Your task to perform on an android device: toggle location history Image 0: 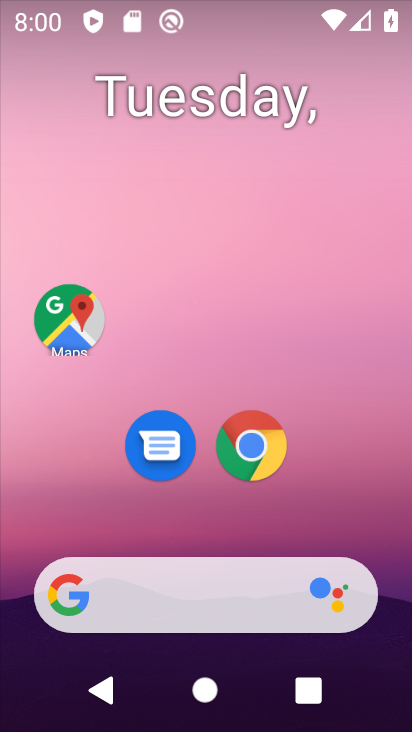
Step 0: drag from (179, 440) to (211, 259)
Your task to perform on an android device: toggle location history Image 1: 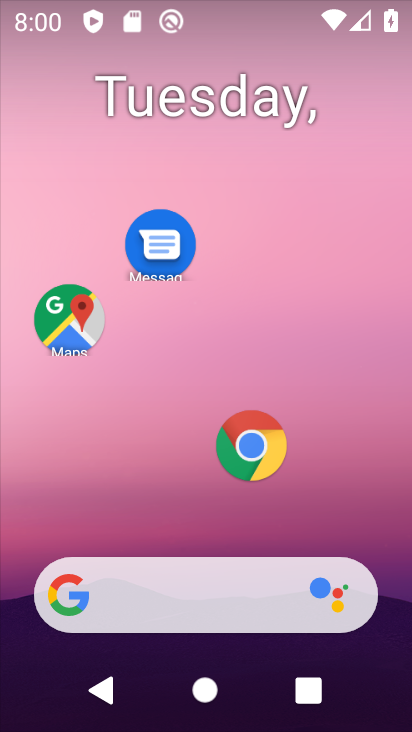
Step 1: drag from (191, 548) to (223, 149)
Your task to perform on an android device: toggle location history Image 2: 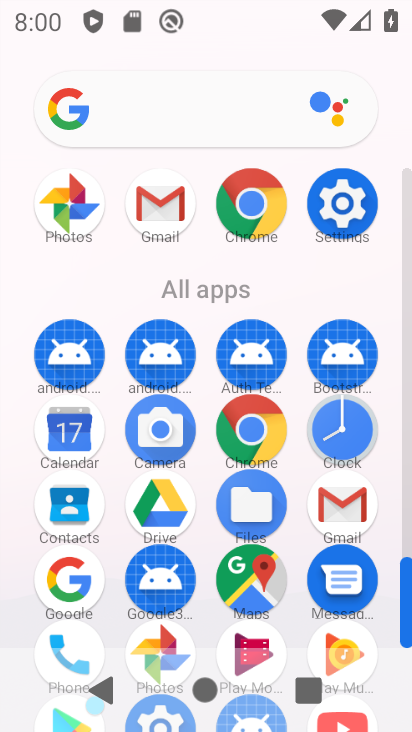
Step 2: click (343, 189)
Your task to perform on an android device: toggle location history Image 3: 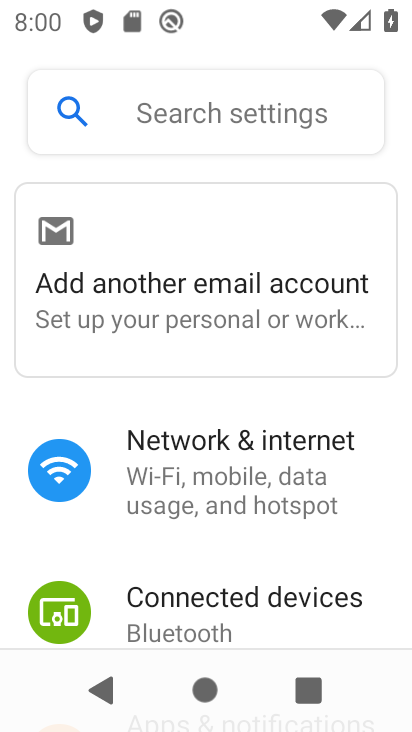
Step 3: drag from (247, 610) to (292, 338)
Your task to perform on an android device: toggle location history Image 4: 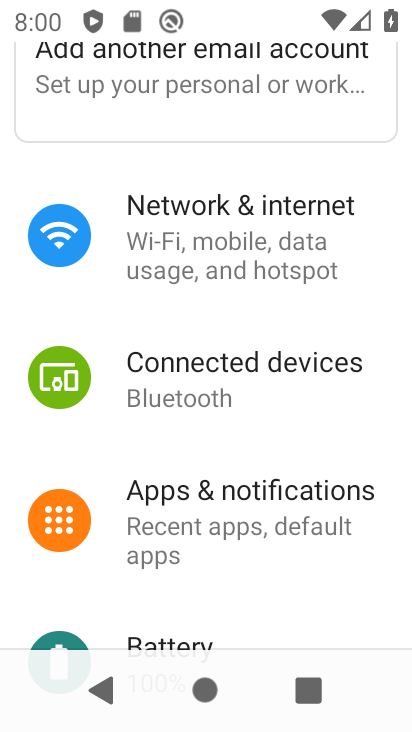
Step 4: drag from (279, 486) to (311, 341)
Your task to perform on an android device: toggle location history Image 5: 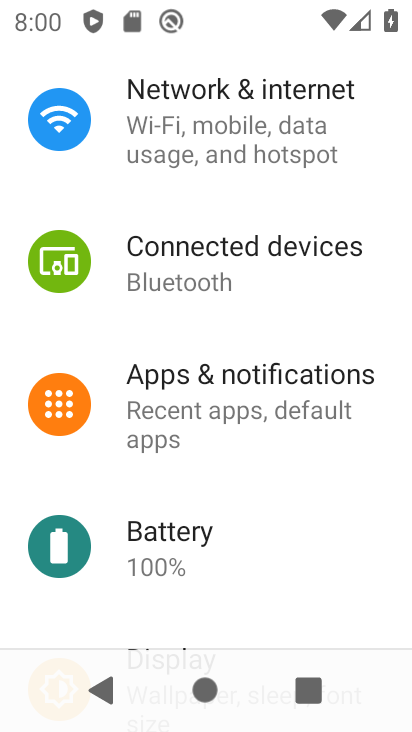
Step 5: drag from (299, 399) to (310, 309)
Your task to perform on an android device: toggle location history Image 6: 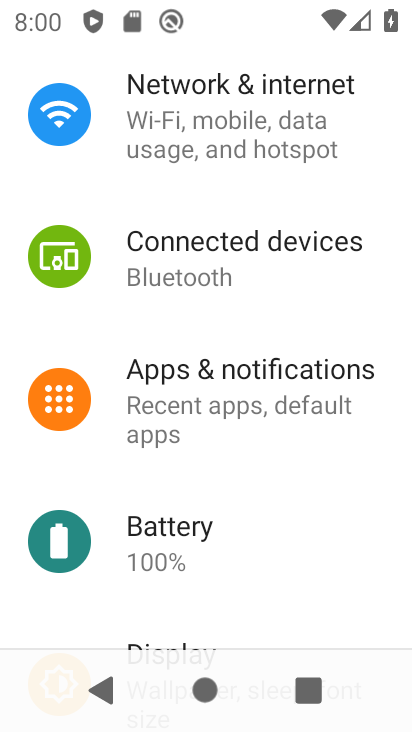
Step 6: drag from (260, 553) to (270, 324)
Your task to perform on an android device: toggle location history Image 7: 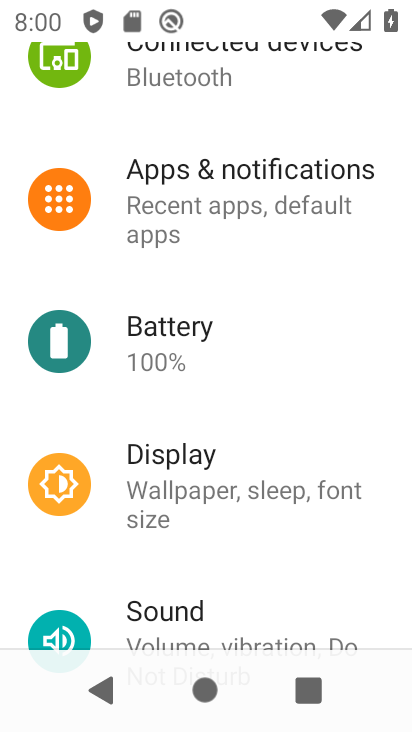
Step 7: drag from (208, 412) to (213, 278)
Your task to perform on an android device: toggle location history Image 8: 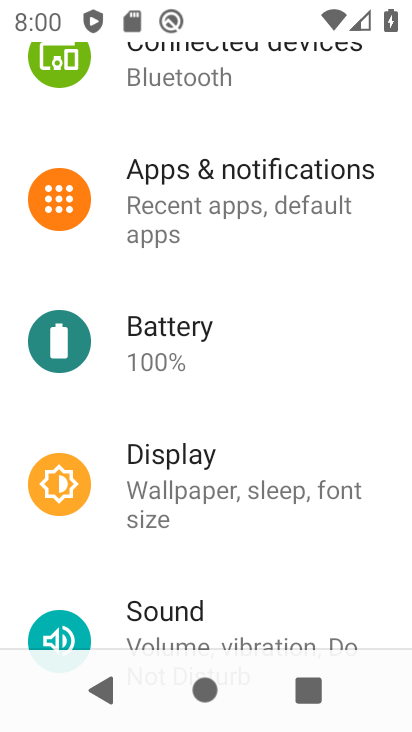
Step 8: drag from (153, 641) to (191, 335)
Your task to perform on an android device: toggle location history Image 9: 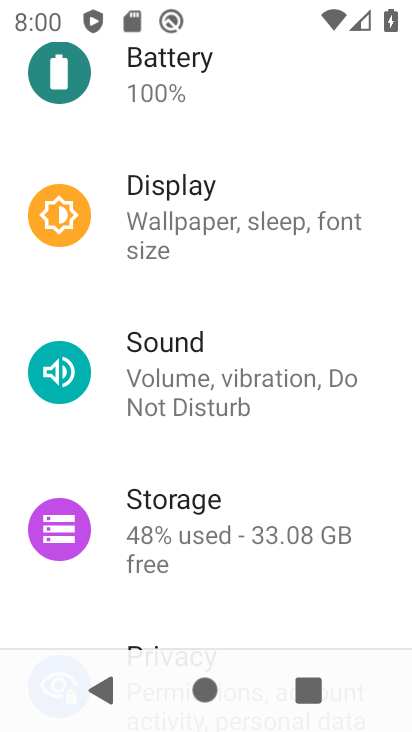
Step 9: drag from (167, 553) to (197, 283)
Your task to perform on an android device: toggle location history Image 10: 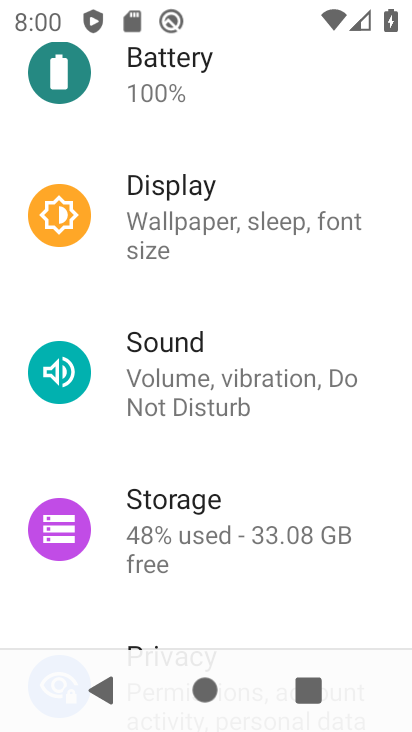
Step 10: drag from (356, 482) to (336, 217)
Your task to perform on an android device: toggle location history Image 11: 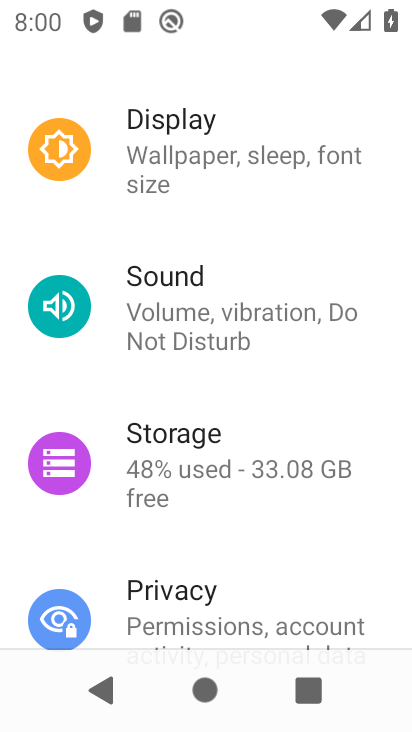
Step 11: drag from (344, 642) to (310, 228)
Your task to perform on an android device: toggle location history Image 12: 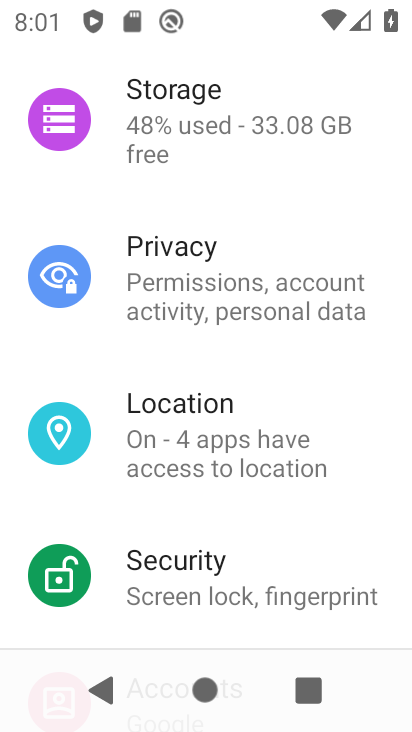
Step 12: click (197, 444)
Your task to perform on an android device: toggle location history Image 13: 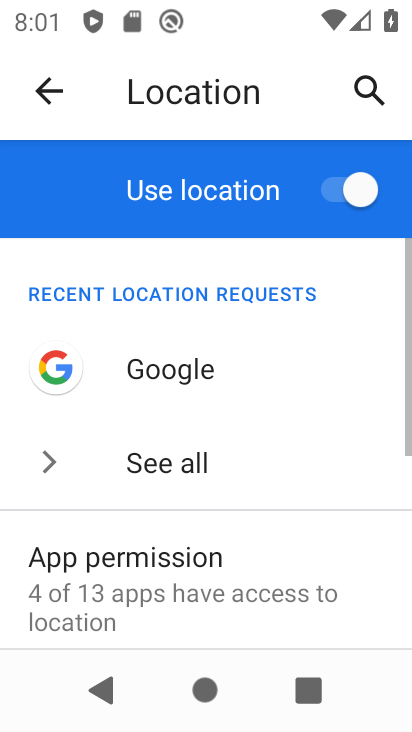
Step 13: drag from (228, 614) to (276, 298)
Your task to perform on an android device: toggle location history Image 14: 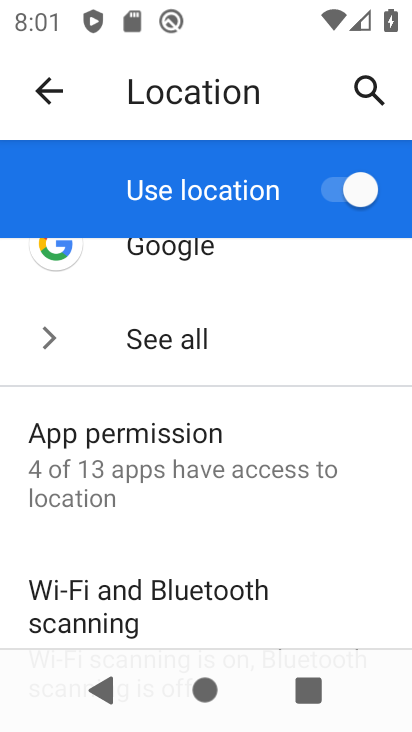
Step 14: drag from (277, 627) to (266, 369)
Your task to perform on an android device: toggle location history Image 15: 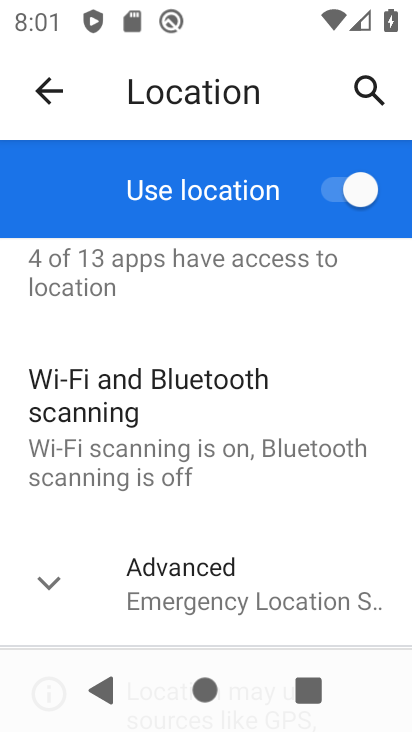
Step 15: click (179, 597)
Your task to perform on an android device: toggle location history Image 16: 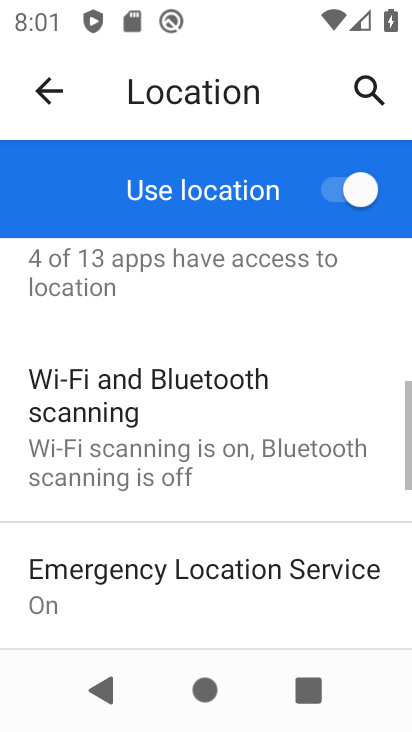
Step 16: drag from (304, 623) to (325, 314)
Your task to perform on an android device: toggle location history Image 17: 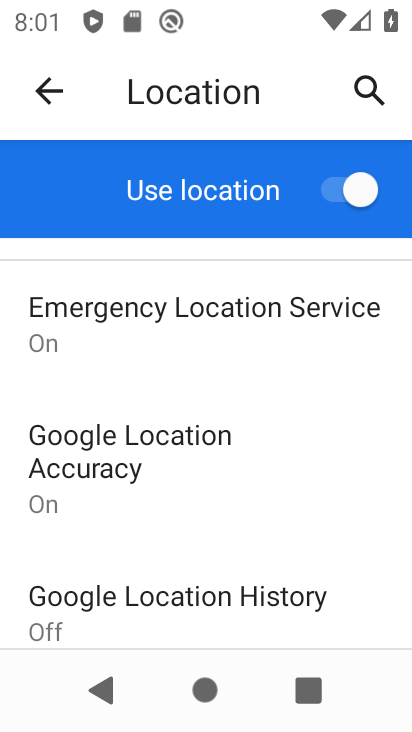
Step 17: click (138, 616)
Your task to perform on an android device: toggle location history Image 18: 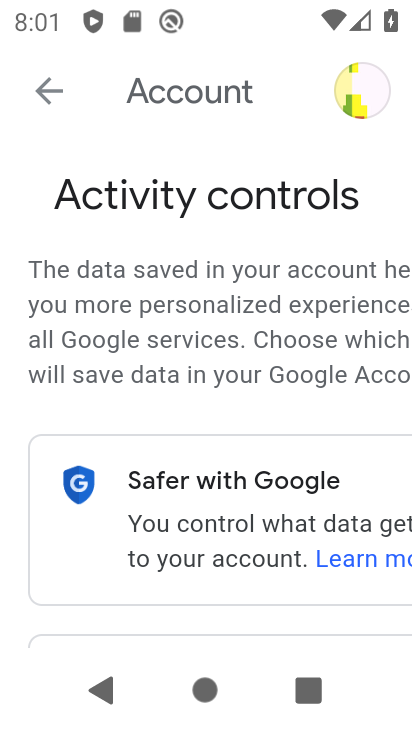
Step 18: click (330, 335)
Your task to perform on an android device: toggle location history Image 19: 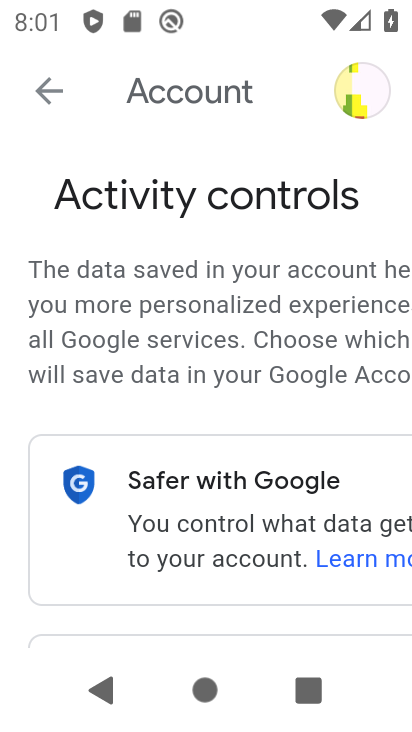
Step 19: drag from (232, 593) to (234, 177)
Your task to perform on an android device: toggle location history Image 20: 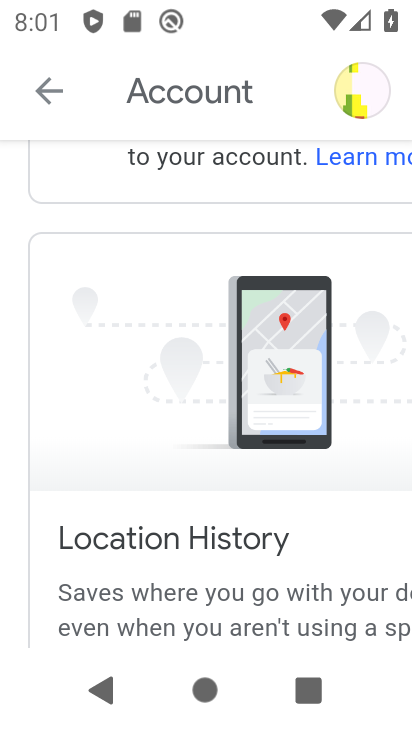
Step 20: drag from (197, 578) to (188, 199)
Your task to perform on an android device: toggle location history Image 21: 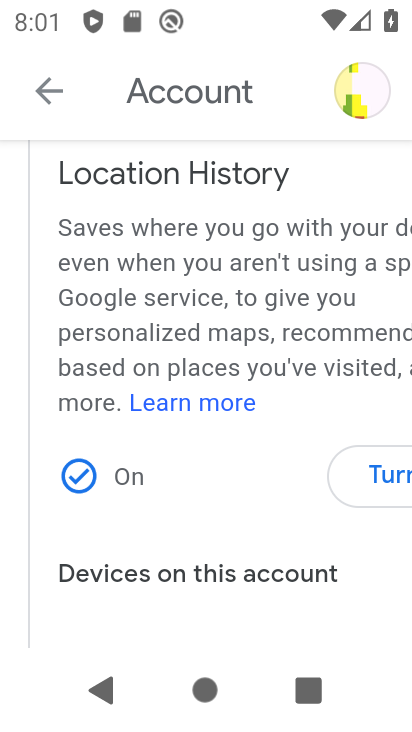
Step 21: drag from (217, 578) to (229, 231)
Your task to perform on an android device: toggle location history Image 22: 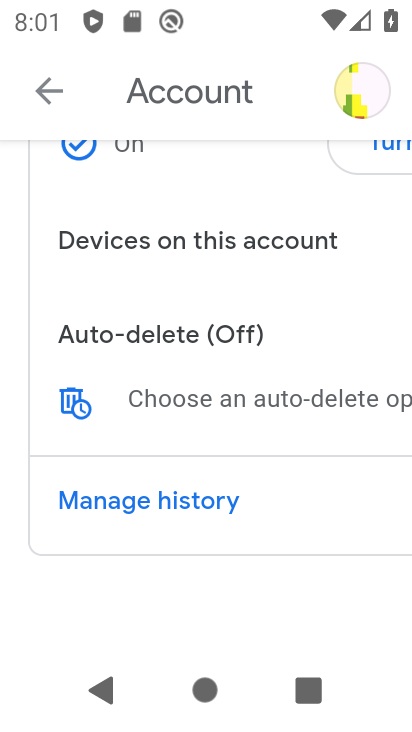
Step 22: click (381, 153)
Your task to perform on an android device: toggle location history Image 23: 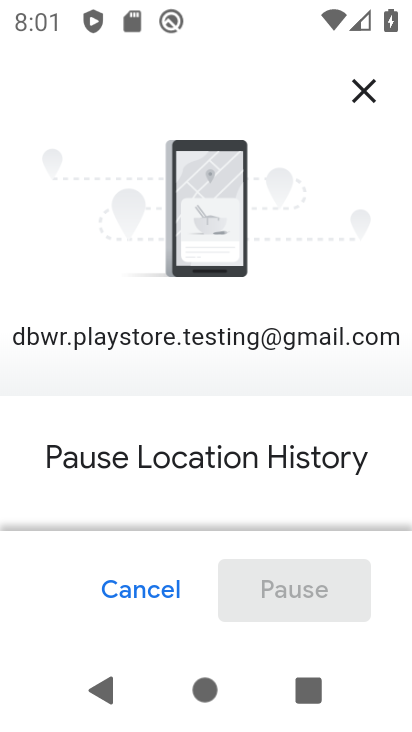
Step 23: drag from (257, 499) to (245, 178)
Your task to perform on an android device: toggle location history Image 24: 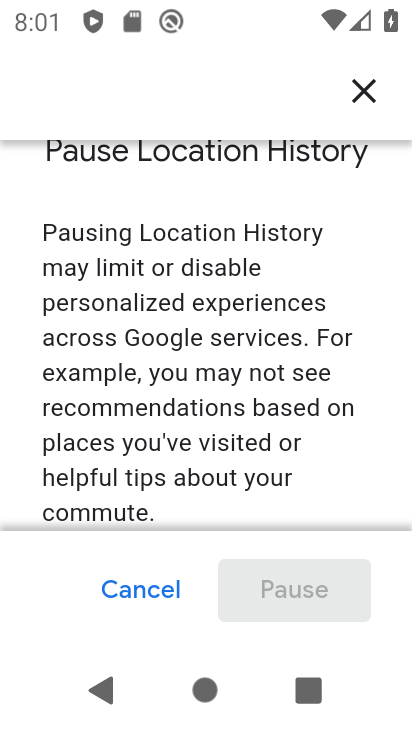
Step 24: drag from (269, 476) to (272, 202)
Your task to perform on an android device: toggle location history Image 25: 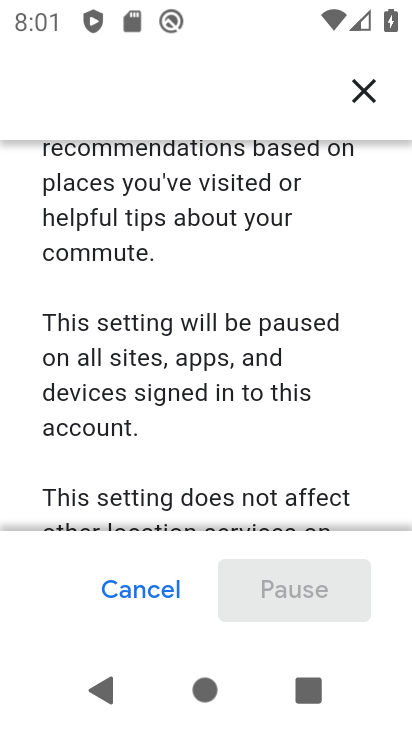
Step 25: drag from (274, 514) to (294, 235)
Your task to perform on an android device: toggle location history Image 26: 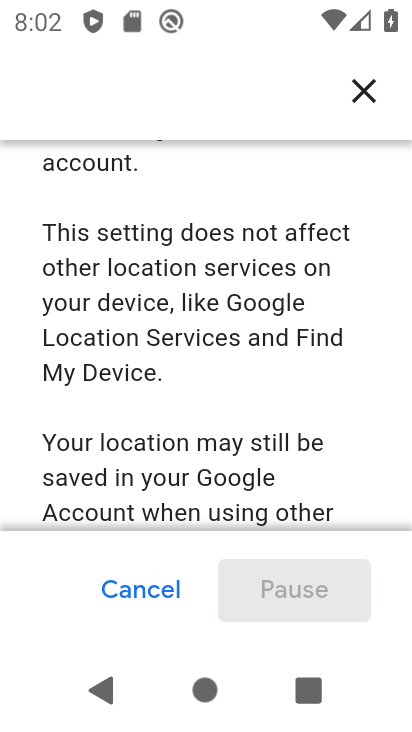
Step 26: drag from (280, 525) to (290, 228)
Your task to perform on an android device: toggle location history Image 27: 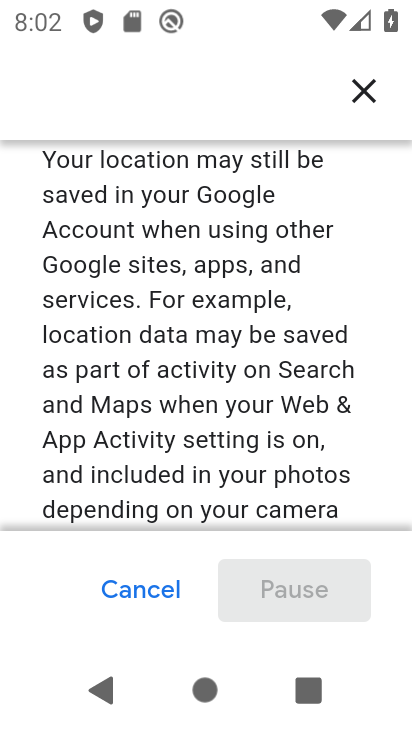
Step 27: drag from (306, 501) to (296, 170)
Your task to perform on an android device: toggle location history Image 28: 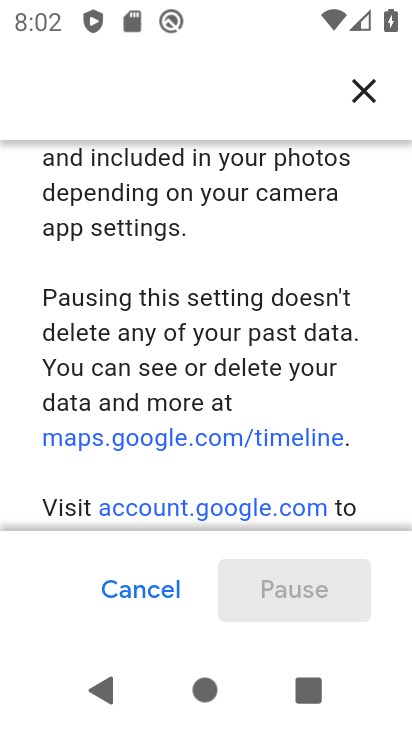
Step 28: drag from (257, 522) to (256, 197)
Your task to perform on an android device: toggle location history Image 29: 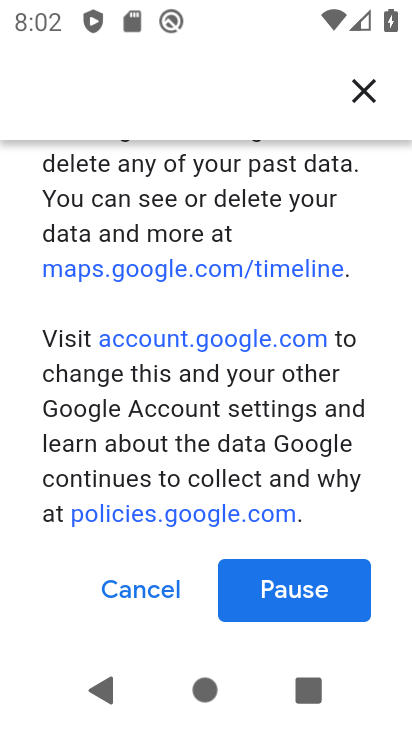
Step 29: click (288, 606)
Your task to perform on an android device: toggle location history Image 30: 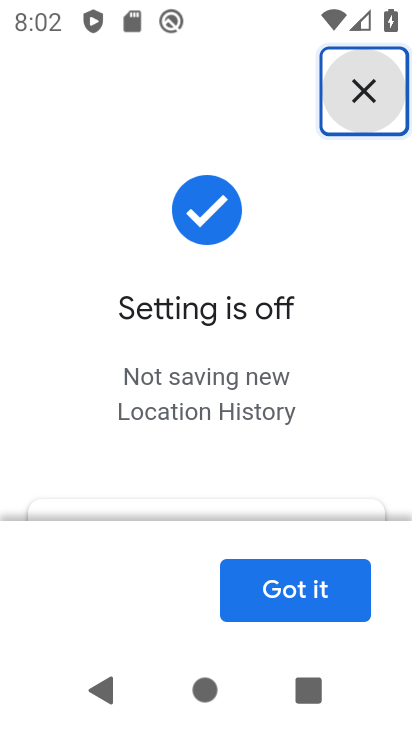
Step 30: click (308, 604)
Your task to perform on an android device: toggle location history Image 31: 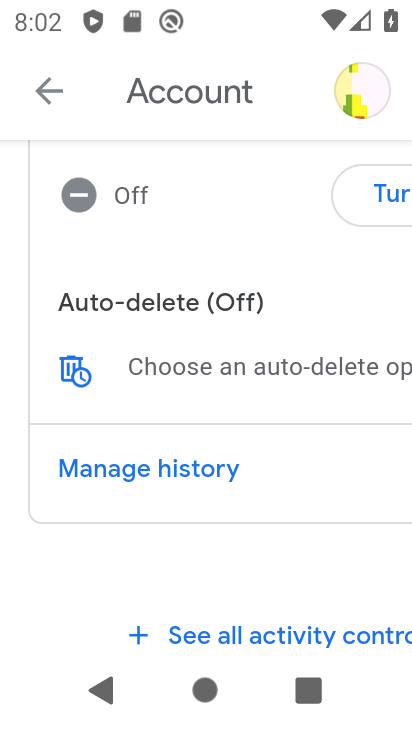
Step 31: task complete